Your task to perform on an android device: Open internet settings Image 0: 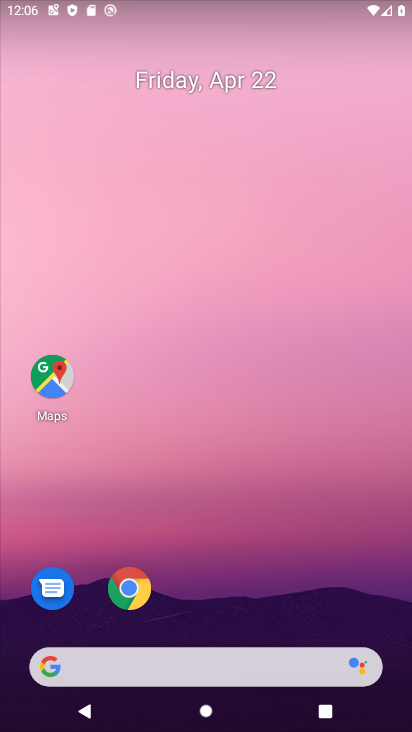
Step 0: drag from (329, 525) to (410, 305)
Your task to perform on an android device: Open internet settings Image 1: 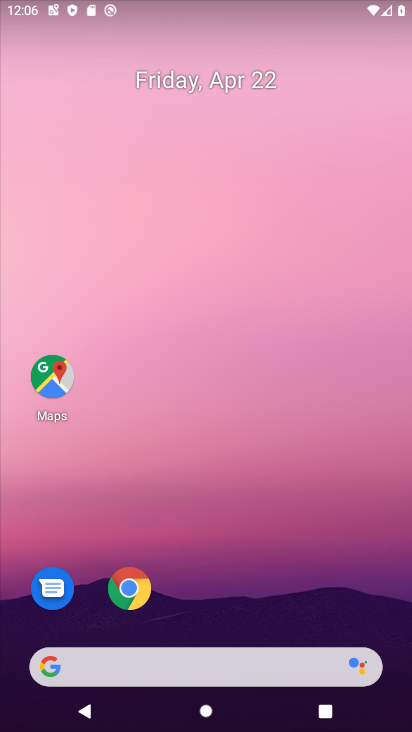
Step 1: drag from (275, 537) to (302, 249)
Your task to perform on an android device: Open internet settings Image 2: 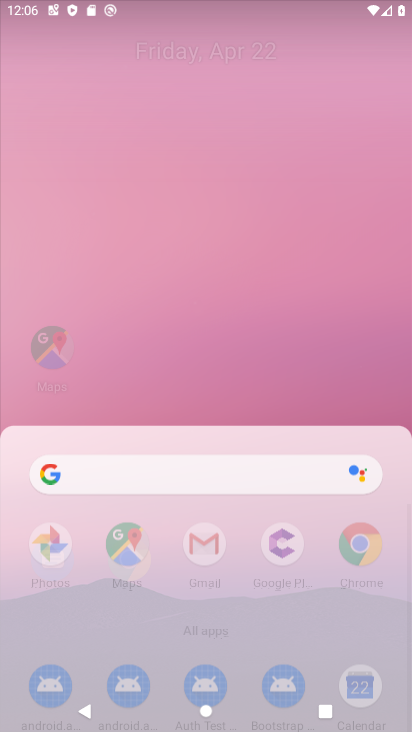
Step 2: click (355, 74)
Your task to perform on an android device: Open internet settings Image 3: 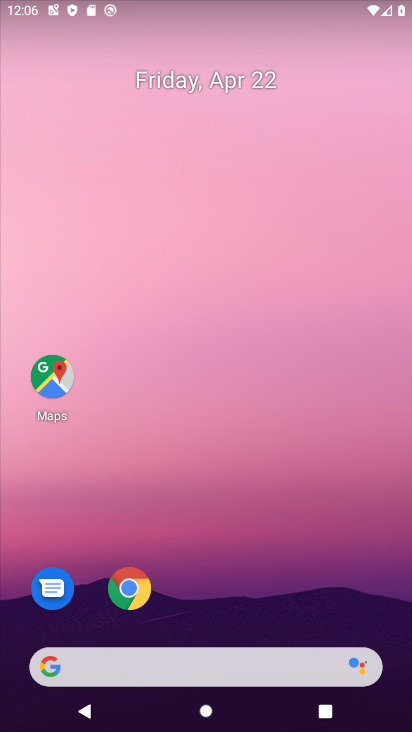
Step 3: drag from (287, 610) to (285, 33)
Your task to perform on an android device: Open internet settings Image 4: 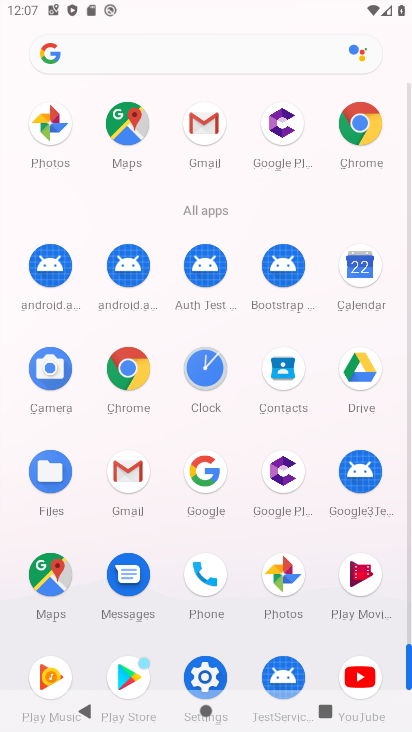
Step 4: click (201, 675)
Your task to perform on an android device: Open internet settings Image 5: 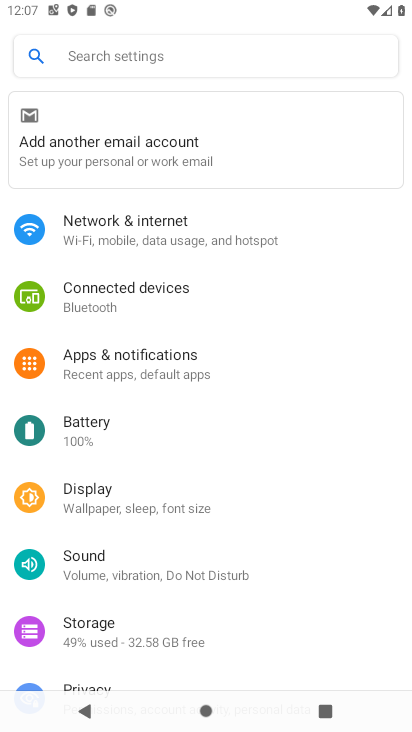
Step 5: click (144, 240)
Your task to perform on an android device: Open internet settings Image 6: 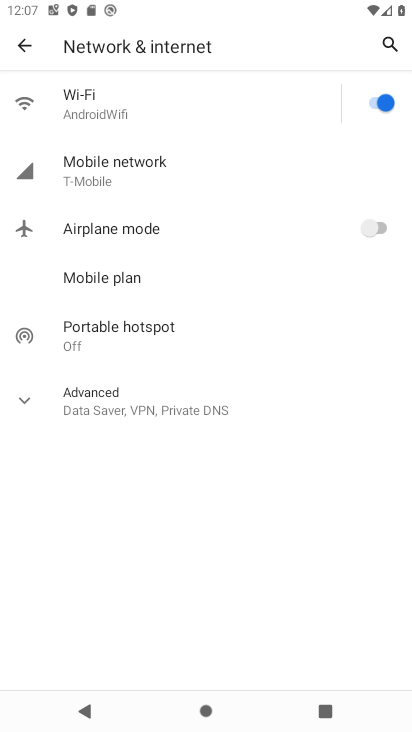
Step 6: task complete